Your task to perform on an android device: all mails in gmail Image 0: 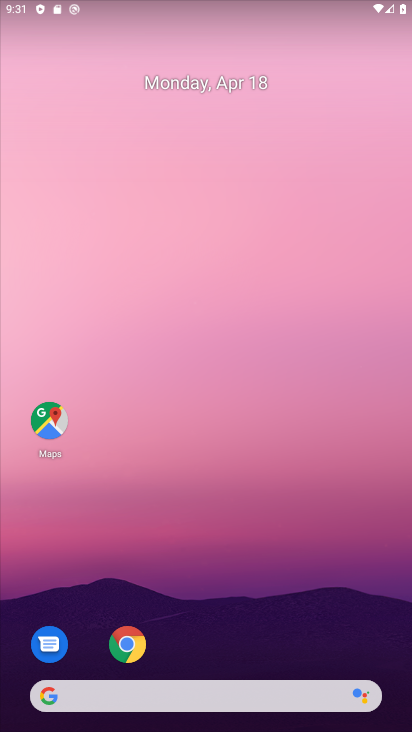
Step 0: drag from (197, 580) to (250, 167)
Your task to perform on an android device: all mails in gmail Image 1: 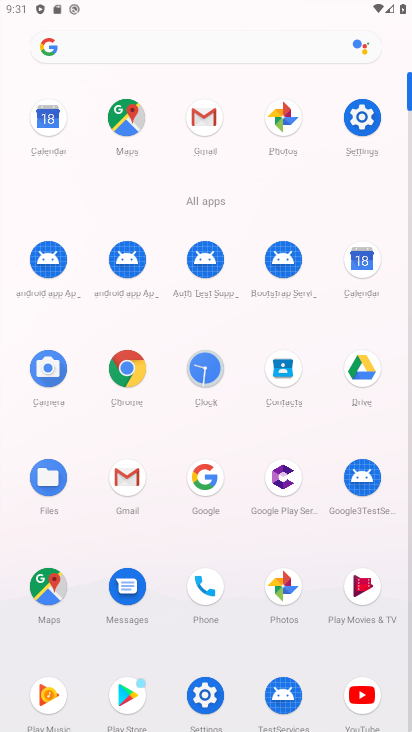
Step 1: click (125, 483)
Your task to perform on an android device: all mails in gmail Image 2: 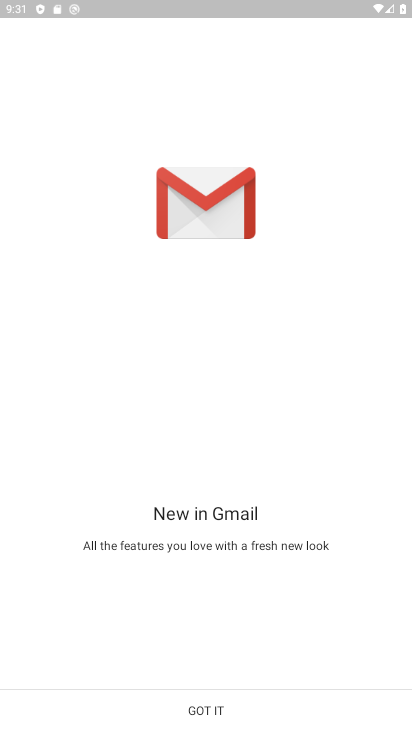
Step 2: click (216, 702)
Your task to perform on an android device: all mails in gmail Image 3: 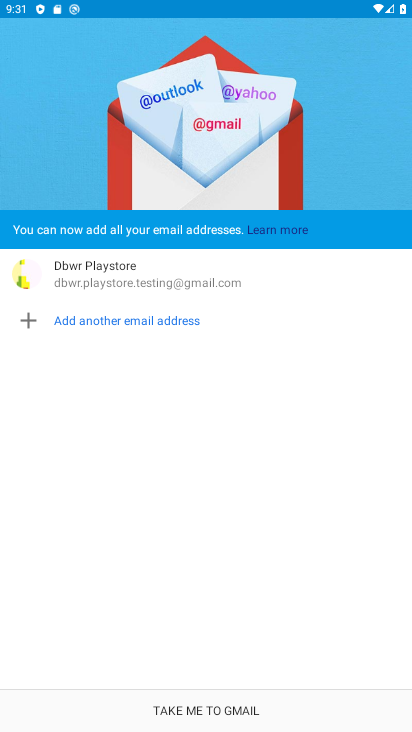
Step 3: click (214, 705)
Your task to perform on an android device: all mails in gmail Image 4: 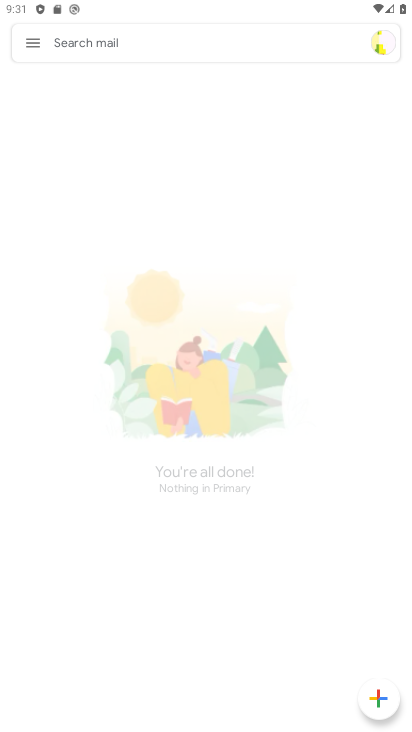
Step 4: click (28, 36)
Your task to perform on an android device: all mails in gmail Image 5: 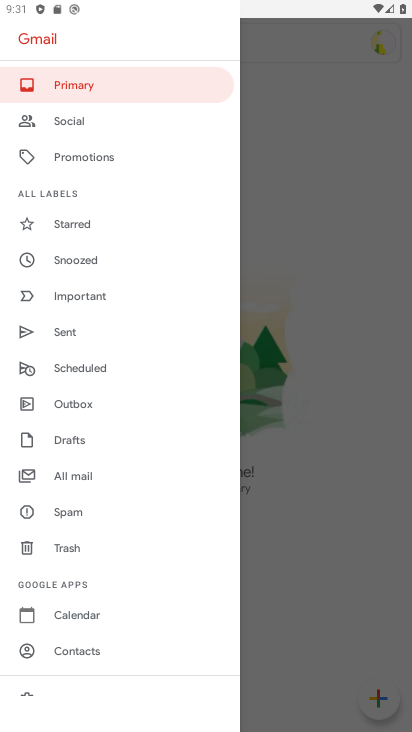
Step 5: click (81, 476)
Your task to perform on an android device: all mails in gmail Image 6: 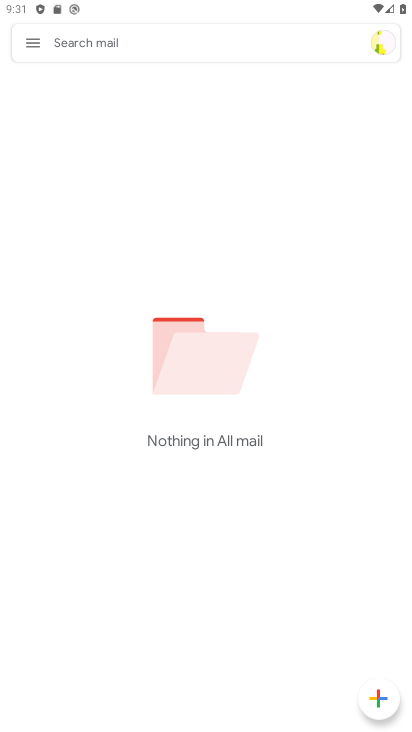
Step 6: task complete